Your task to perform on an android device: check data usage Image 0: 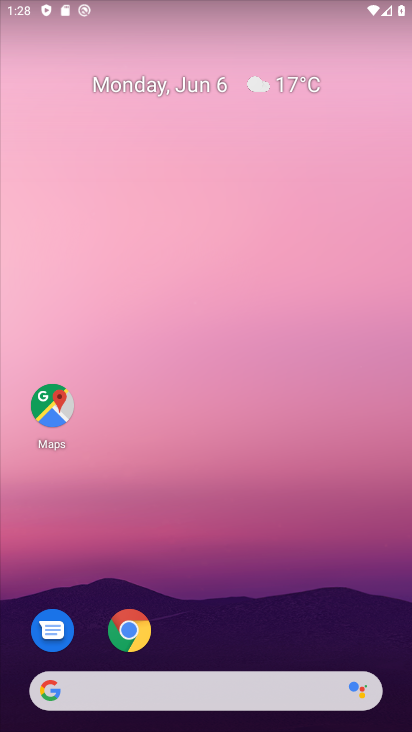
Step 0: drag from (256, 606) to (356, 13)
Your task to perform on an android device: check data usage Image 1: 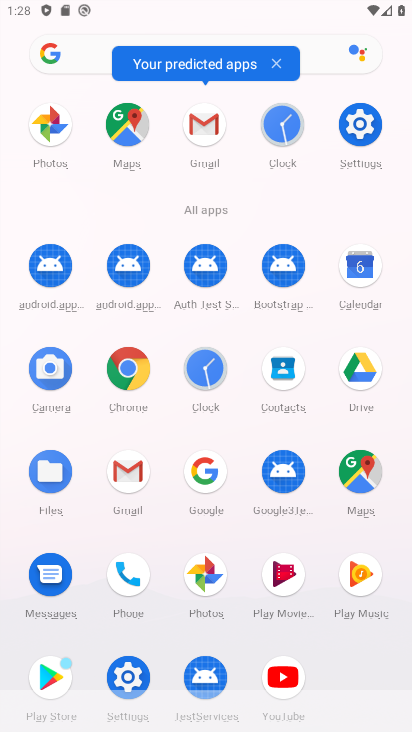
Step 1: drag from (171, 562) to (221, 140)
Your task to perform on an android device: check data usage Image 2: 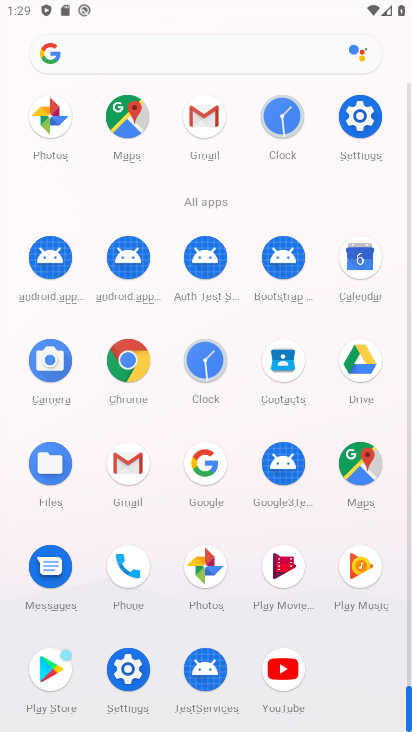
Step 2: drag from (268, 5) to (132, 565)
Your task to perform on an android device: check data usage Image 3: 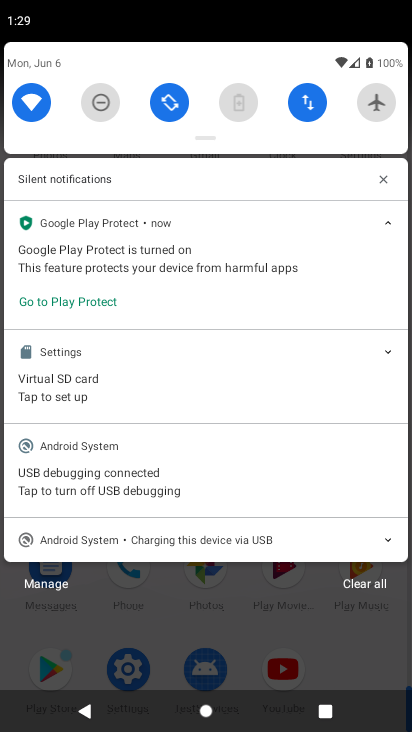
Step 3: click (308, 98)
Your task to perform on an android device: check data usage Image 4: 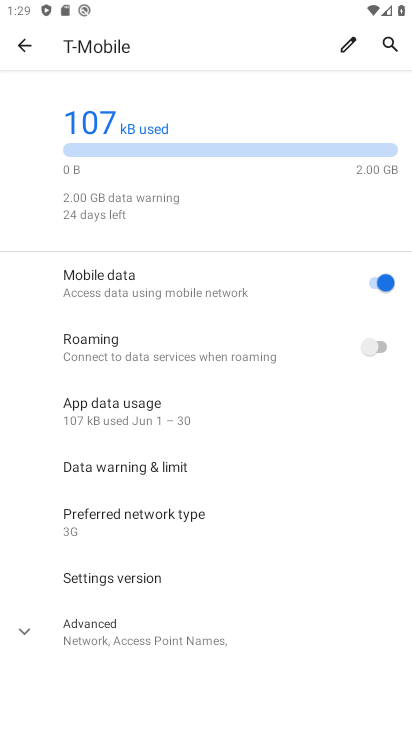
Step 4: task complete